Your task to perform on an android device: Go to settings Image 0: 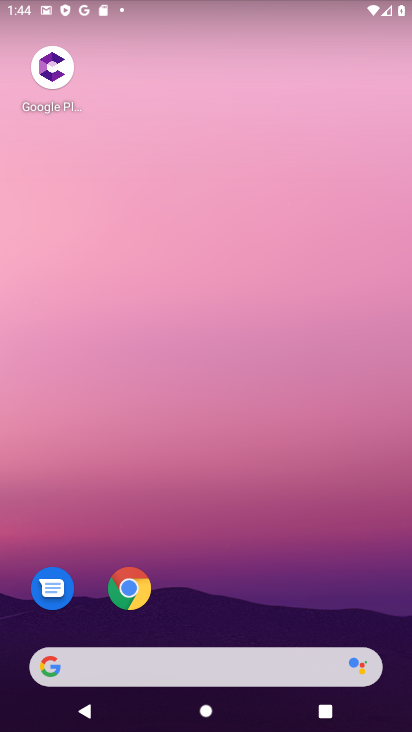
Step 0: drag from (206, 633) to (331, 0)
Your task to perform on an android device: Go to settings Image 1: 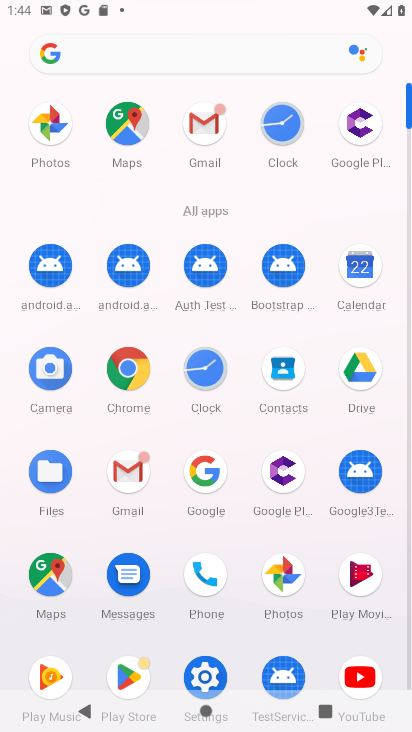
Step 1: click (203, 659)
Your task to perform on an android device: Go to settings Image 2: 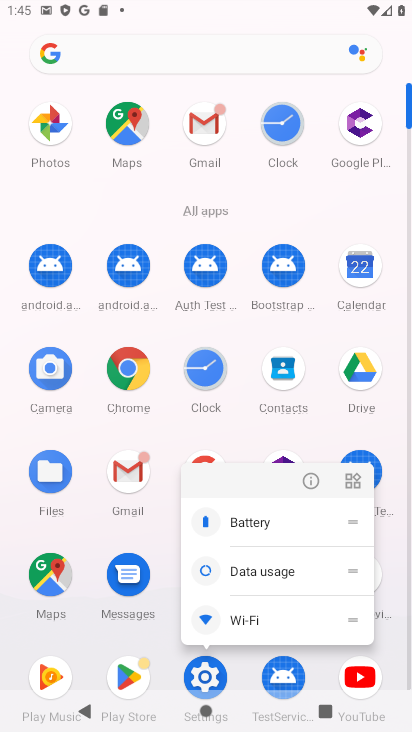
Step 2: click (204, 671)
Your task to perform on an android device: Go to settings Image 3: 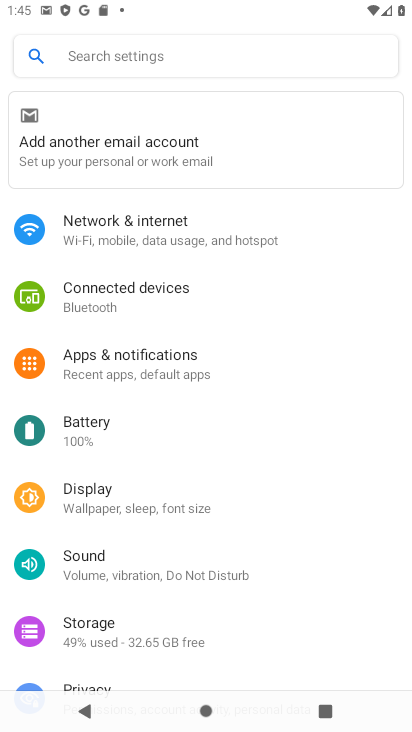
Step 3: task complete